Your task to perform on an android device: turn pop-ups on in chrome Image 0: 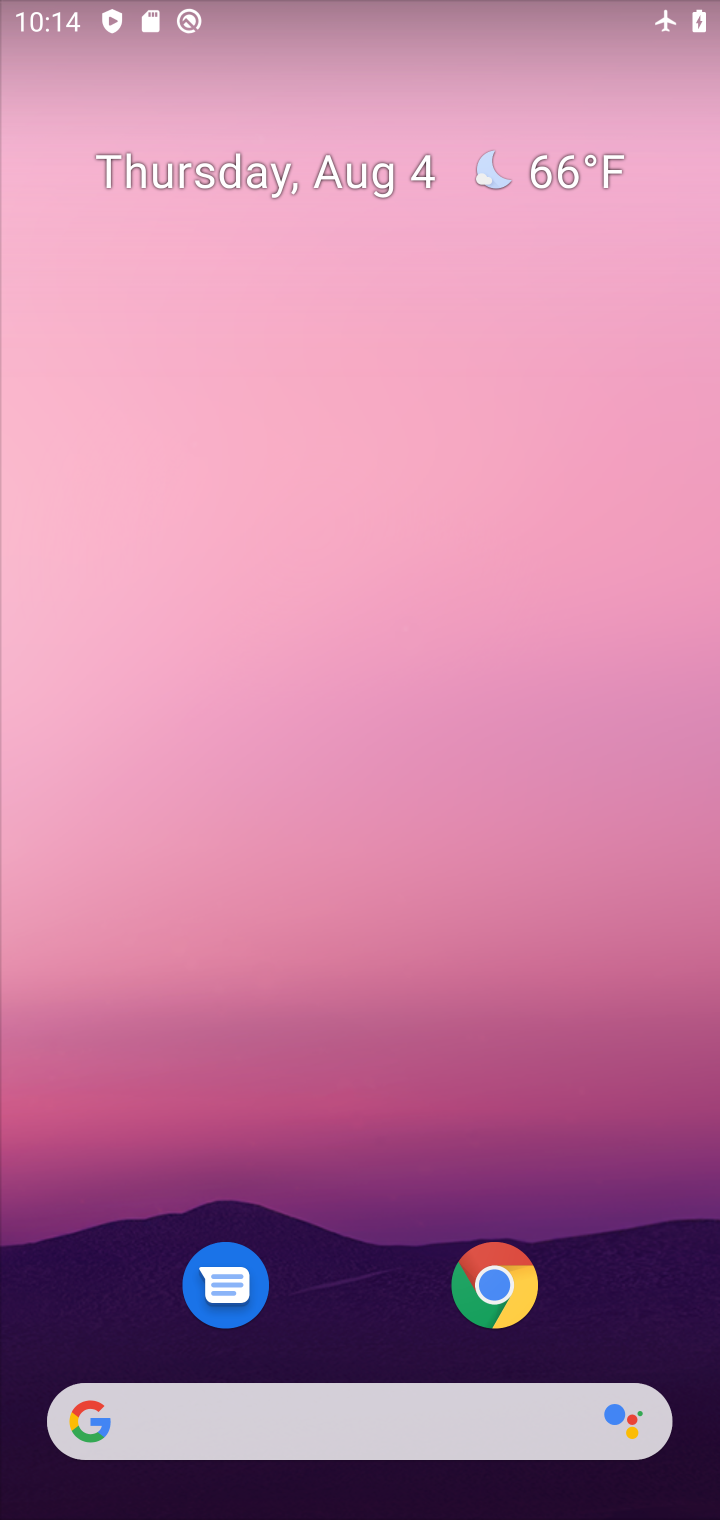
Step 0: press home button
Your task to perform on an android device: turn pop-ups on in chrome Image 1: 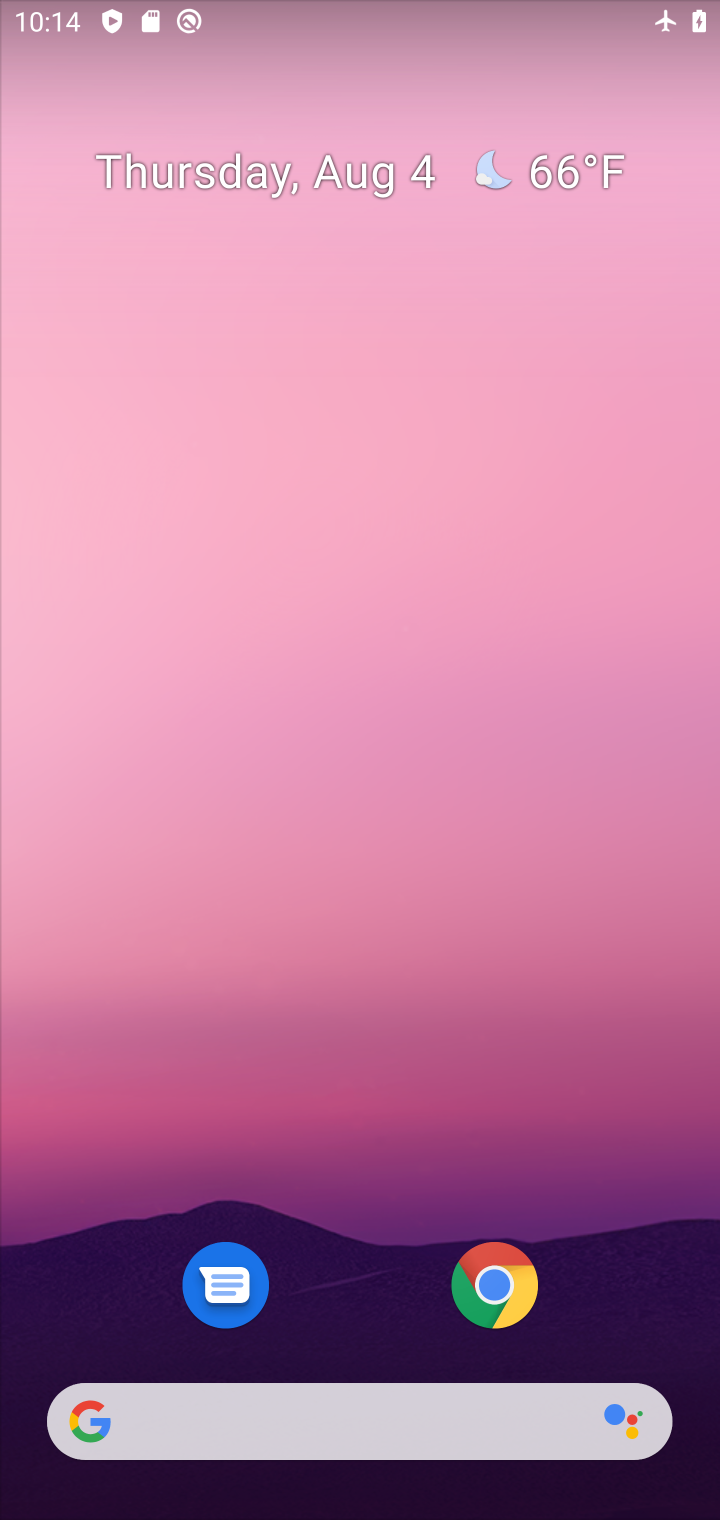
Step 1: drag from (387, 1223) to (309, 80)
Your task to perform on an android device: turn pop-ups on in chrome Image 2: 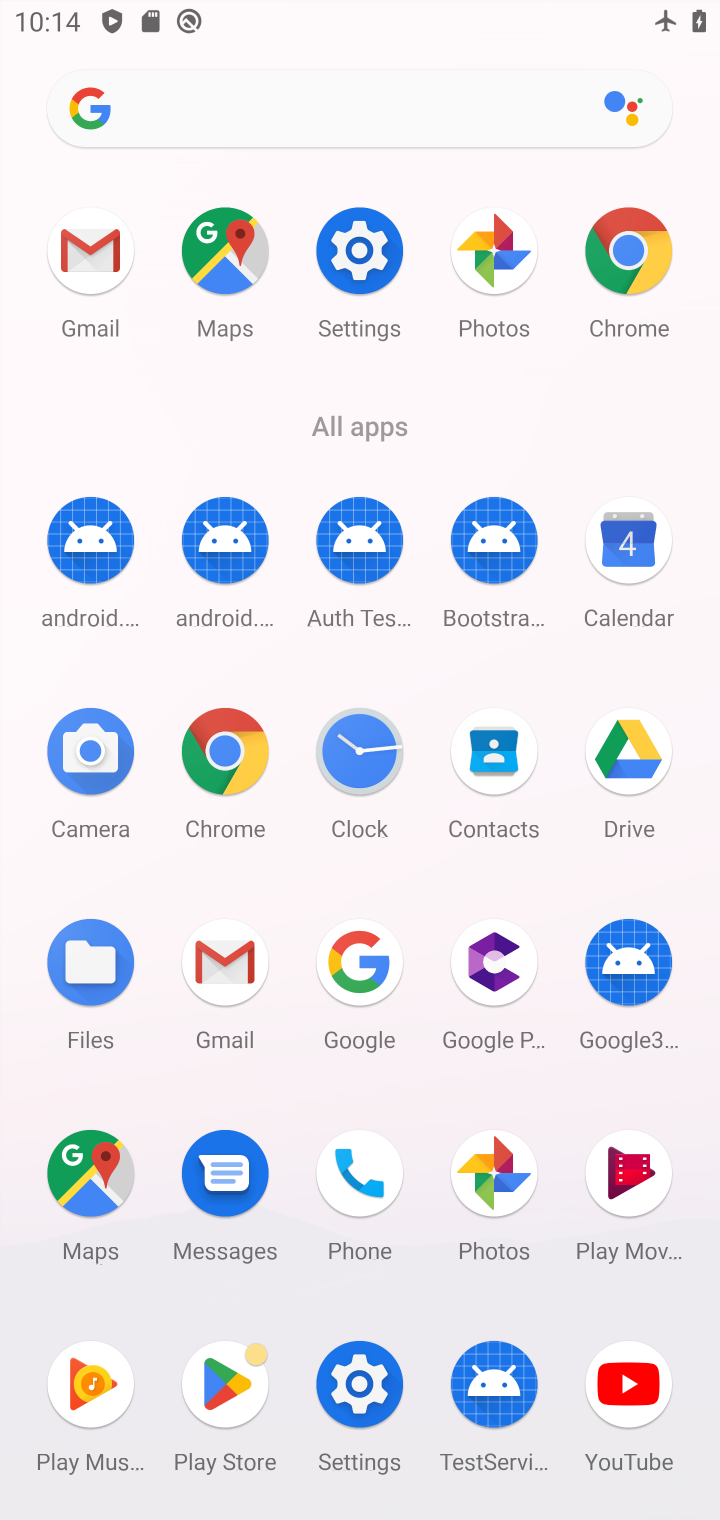
Step 2: click (215, 761)
Your task to perform on an android device: turn pop-ups on in chrome Image 3: 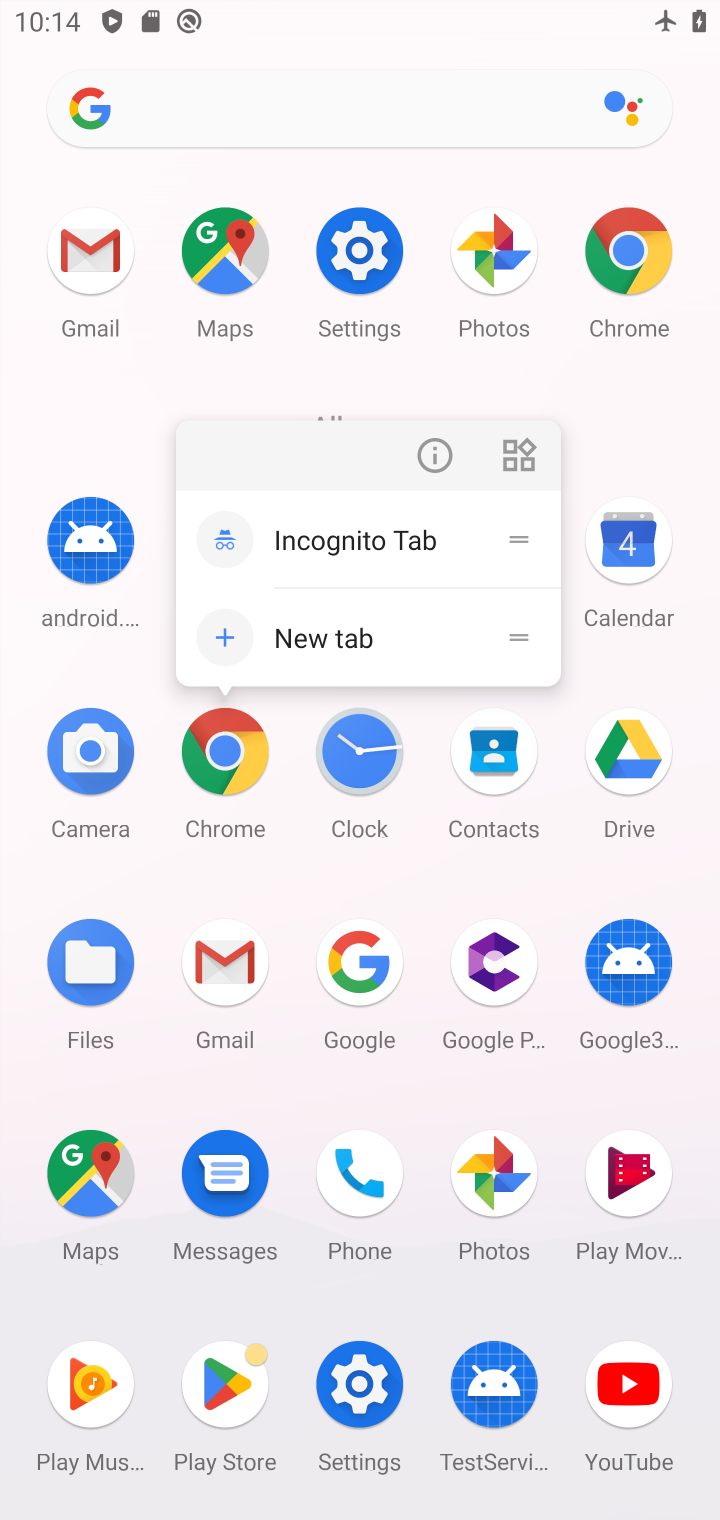
Step 3: click (215, 761)
Your task to perform on an android device: turn pop-ups on in chrome Image 4: 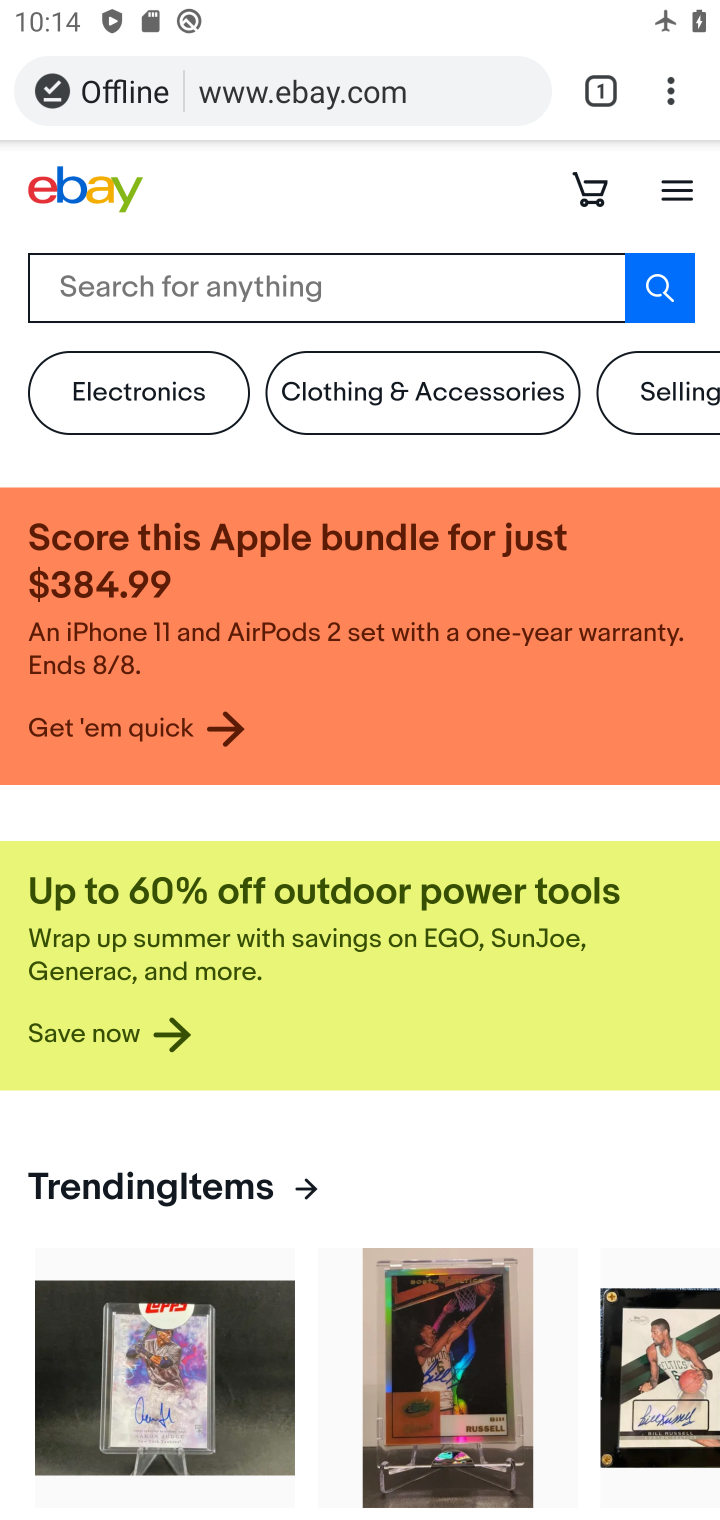
Step 4: drag from (676, 87) to (356, 1122)
Your task to perform on an android device: turn pop-ups on in chrome Image 5: 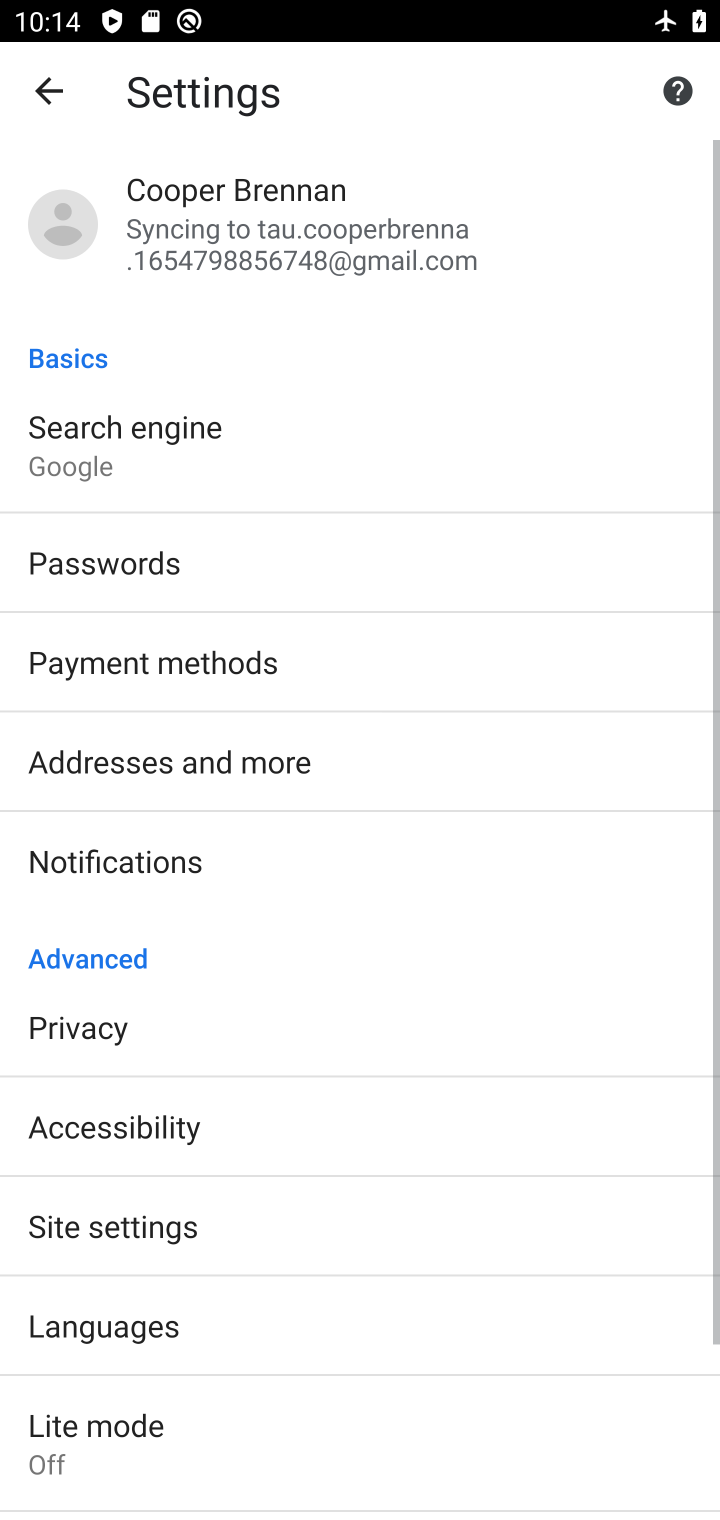
Step 5: drag from (291, 1135) to (279, 657)
Your task to perform on an android device: turn pop-ups on in chrome Image 6: 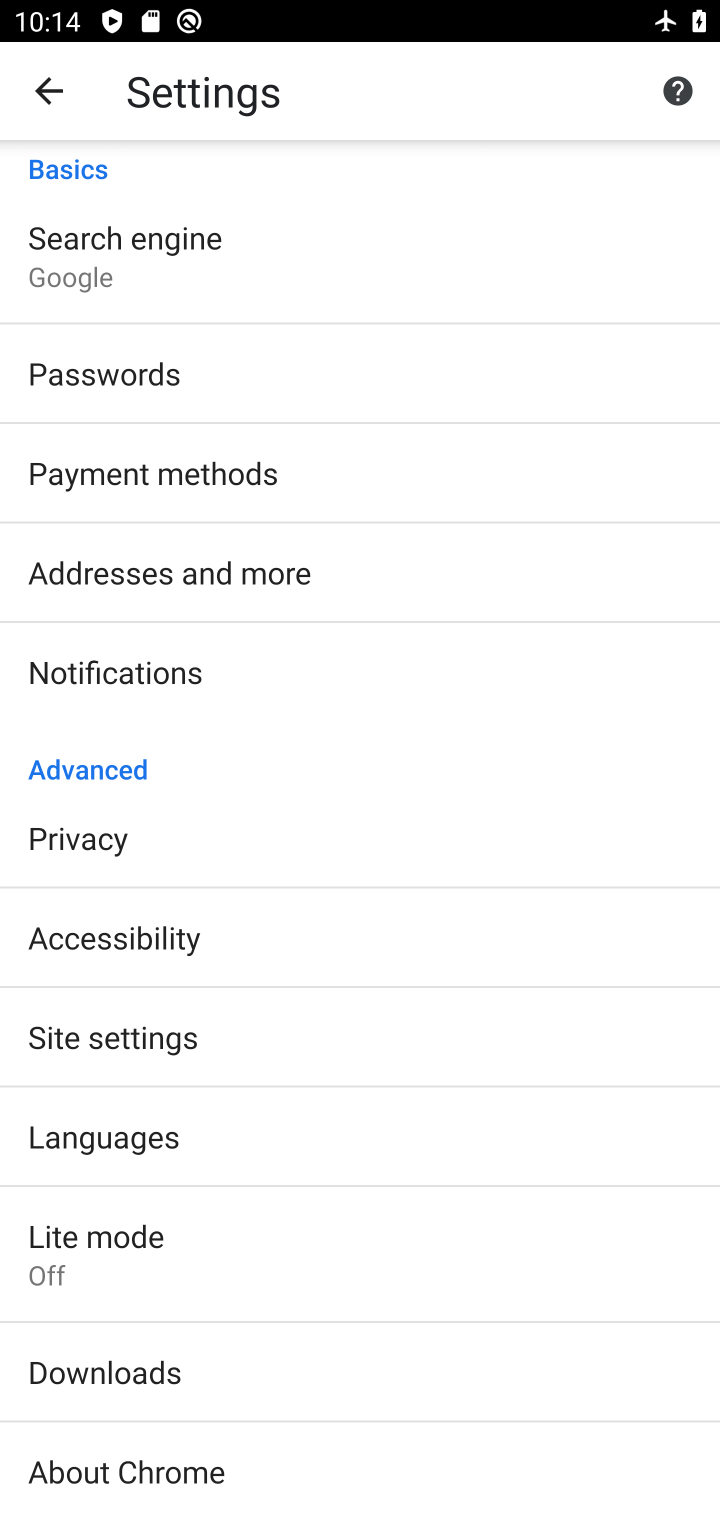
Step 6: click (131, 1028)
Your task to perform on an android device: turn pop-ups on in chrome Image 7: 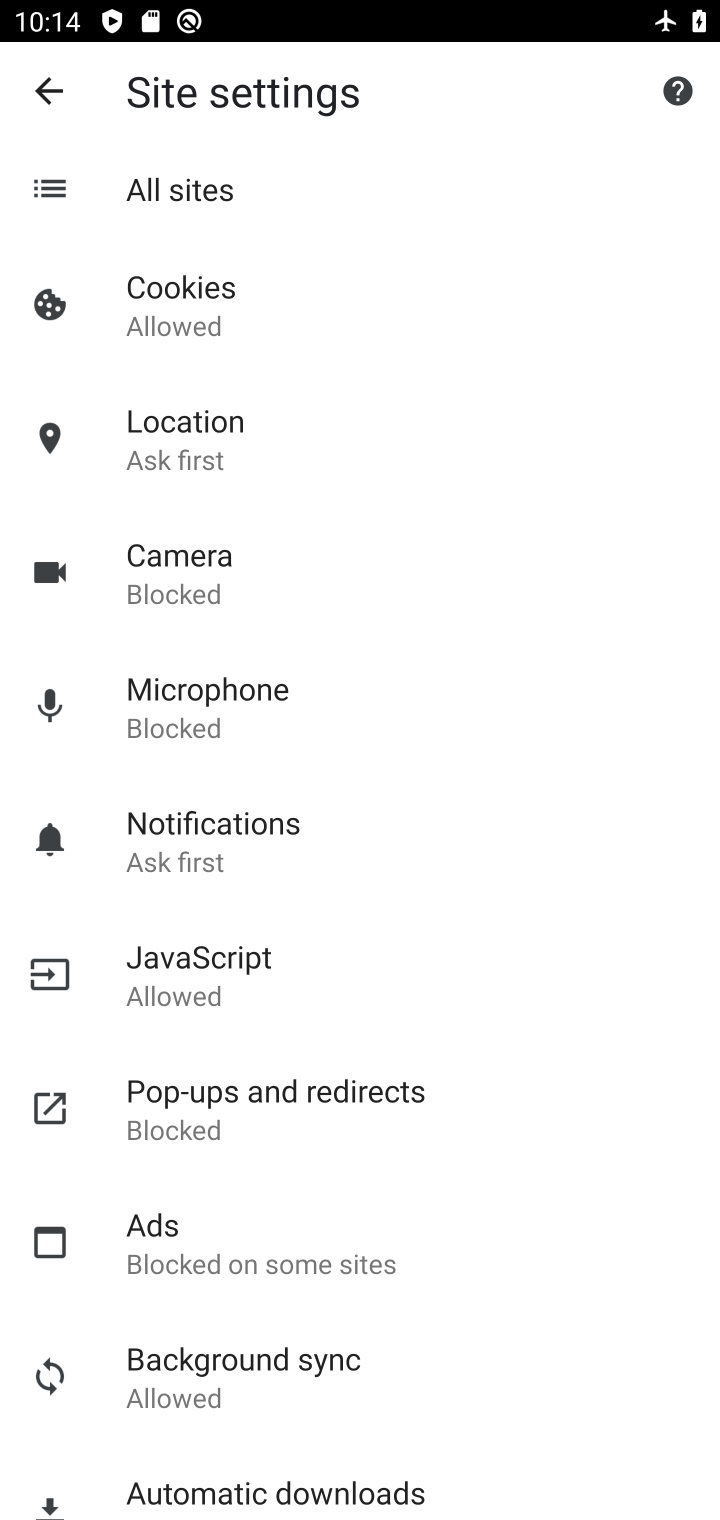
Step 7: click (215, 1105)
Your task to perform on an android device: turn pop-ups on in chrome Image 8: 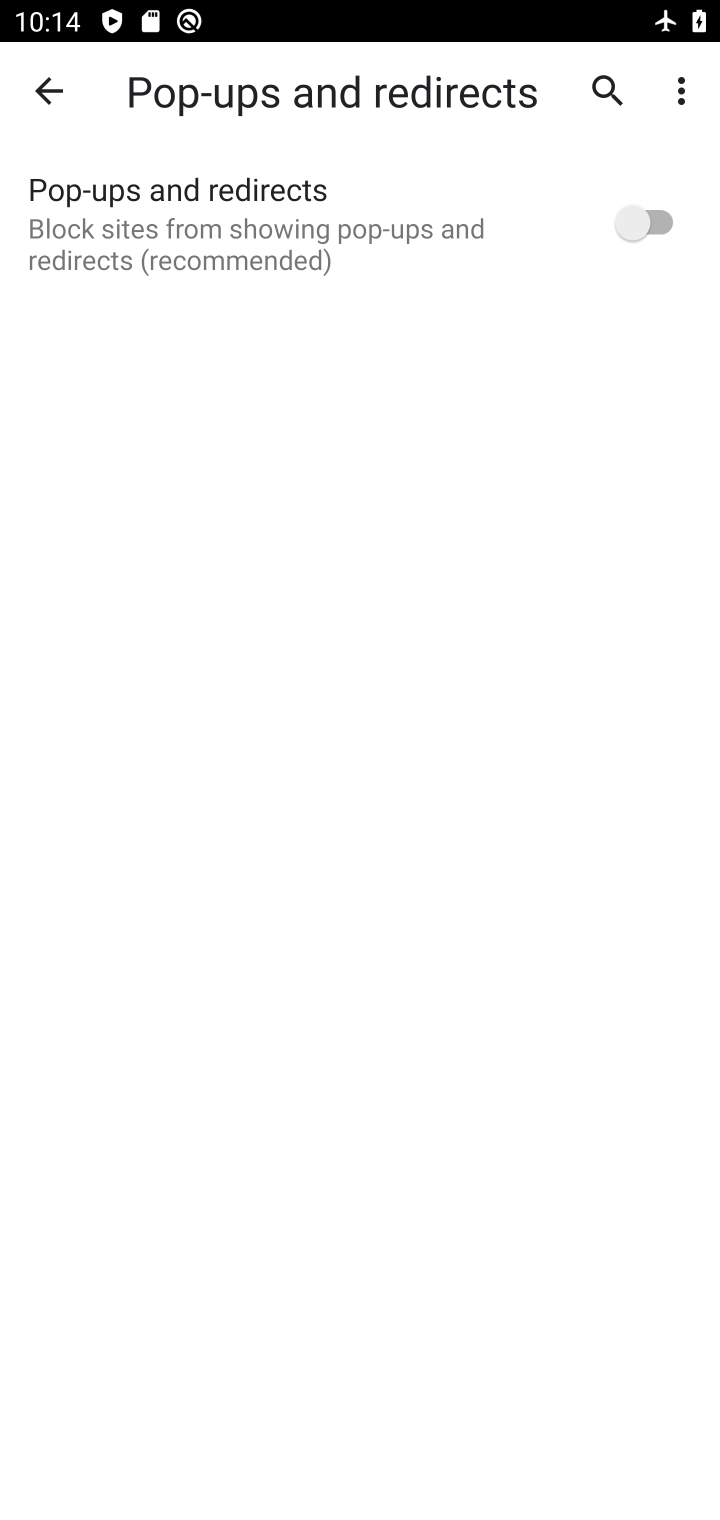
Step 8: click (396, 197)
Your task to perform on an android device: turn pop-ups on in chrome Image 9: 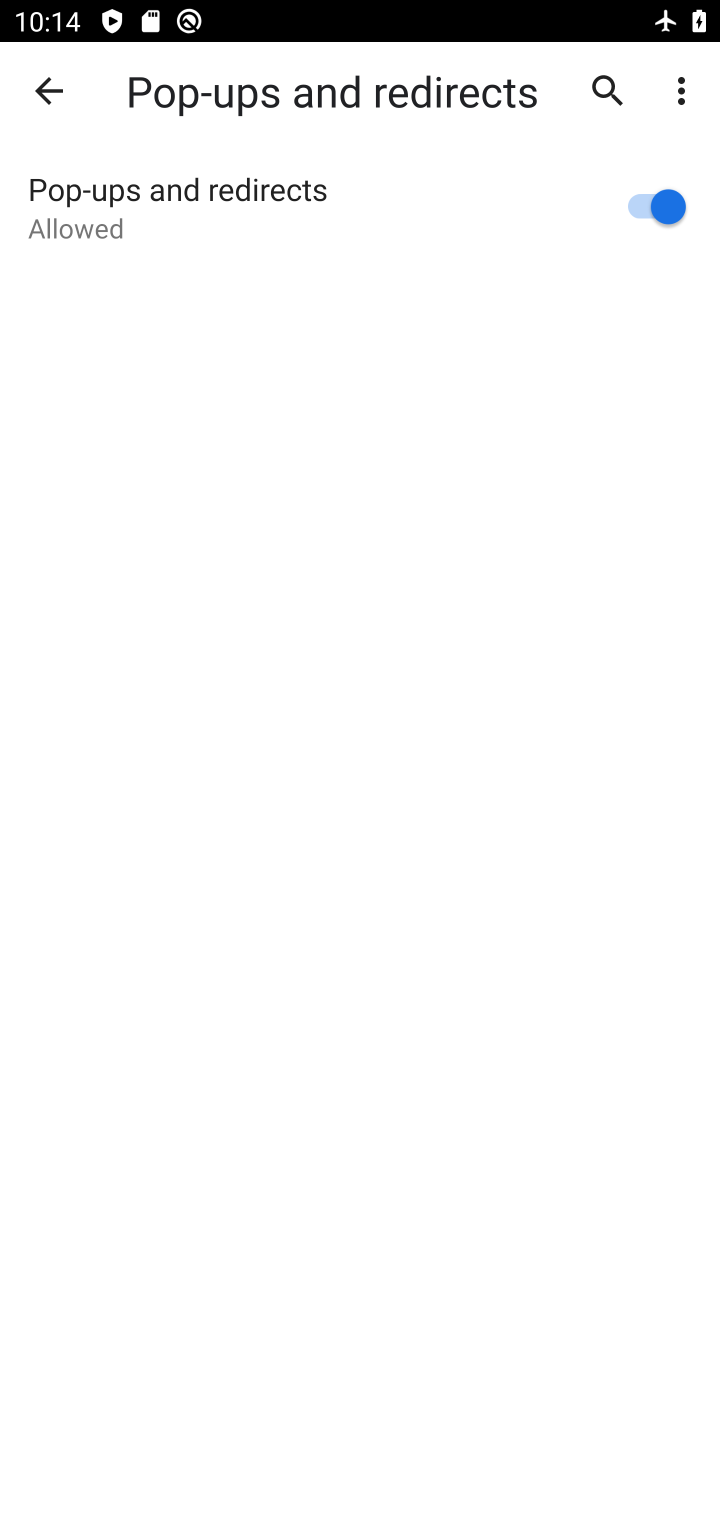
Step 9: task complete